Your task to perform on an android device: Go to Reddit.com Image 0: 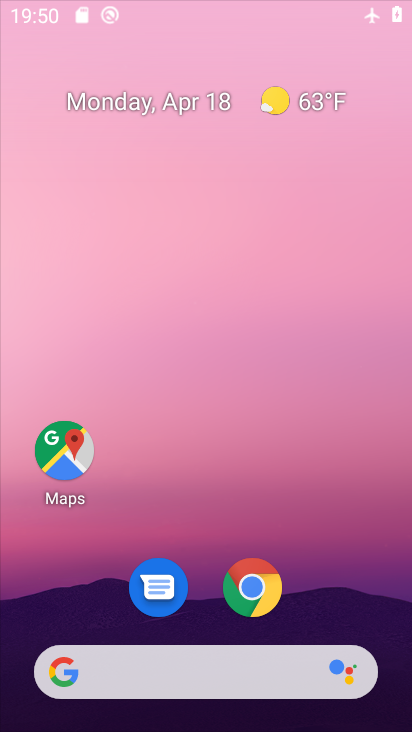
Step 0: drag from (351, 601) to (277, 189)
Your task to perform on an android device: Go to Reddit.com Image 1: 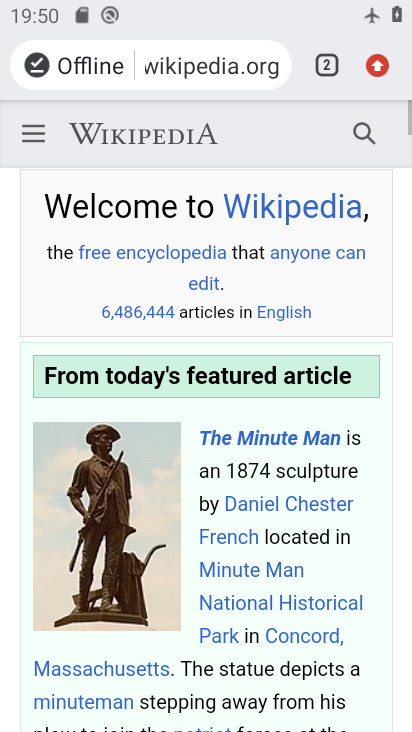
Step 1: click (234, 65)
Your task to perform on an android device: Go to Reddit.com Image 2: 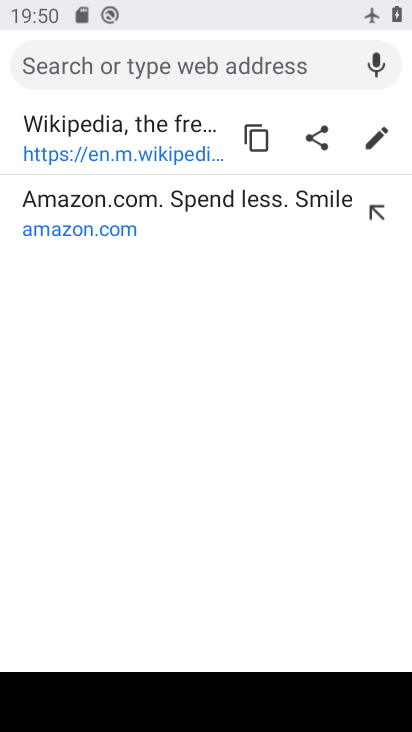
Step 2: task complete